Your task to perform on an android device: Open the phone app and click the voicemail tab. Image 0: 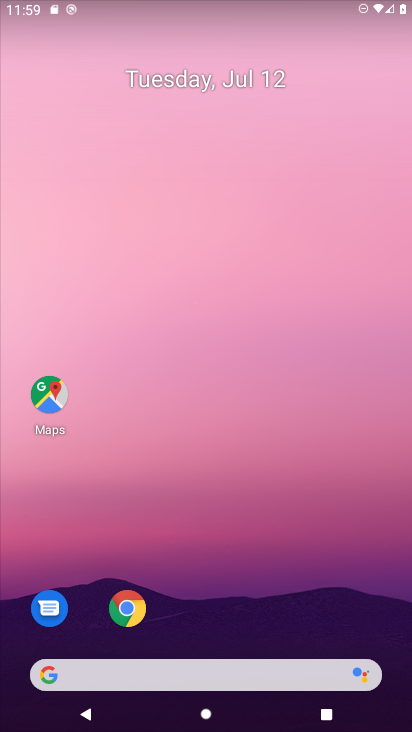
Step 0: drag from (248, 724) to (250, 82)
Your task to perform on an android device: Open the phone app and click the voicemail tab. Image 1: 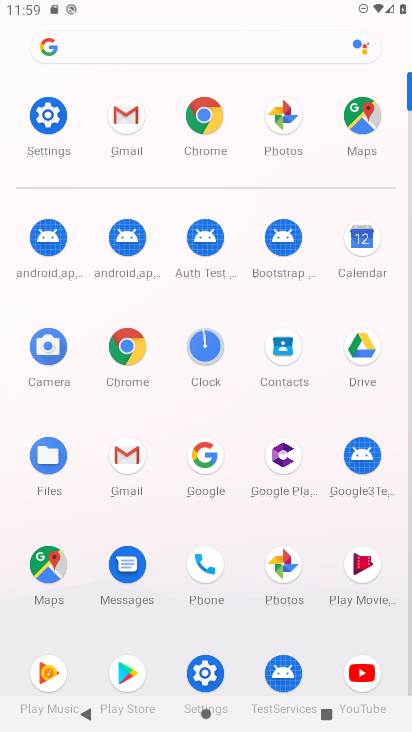
Step 1: click (204, 575)
Your task to perform on an android device: Open the phone app and click the voicemail tab. Image 2: 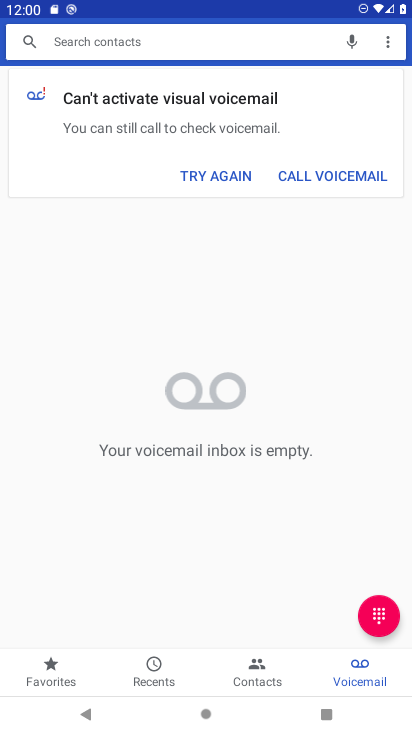
Step 2: task complete